Your task to perform on an android device: see creations saved in the google photos Image 0: 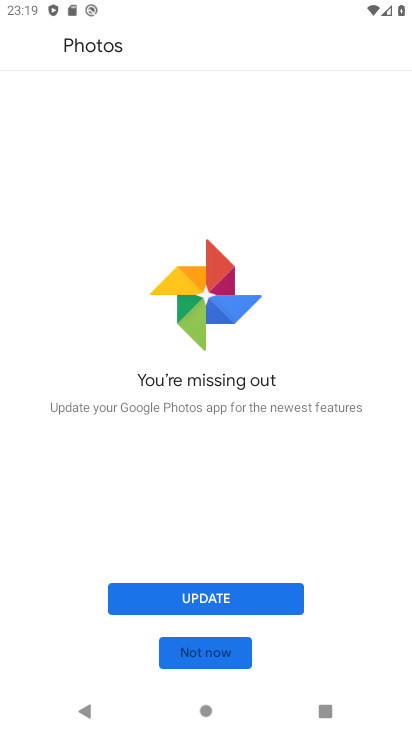
Step 0: press home button
Your task to perform on an android device: see creations saved in the google photos Image 1: 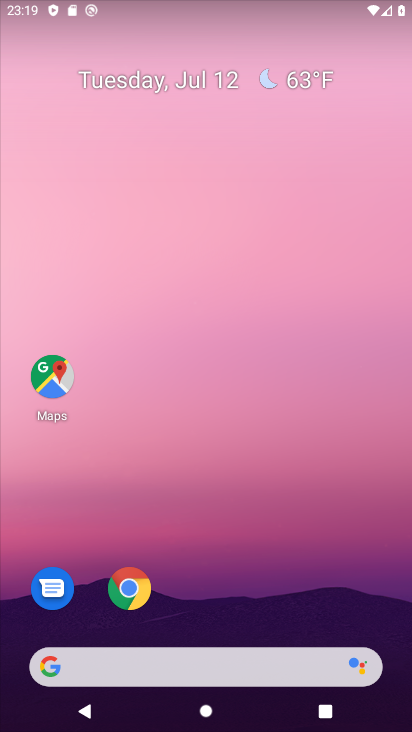
Step 1: drag from (50, 659) to (263, 130)
Your task to perform on an android device: see creations saved in the google photos Image 2: 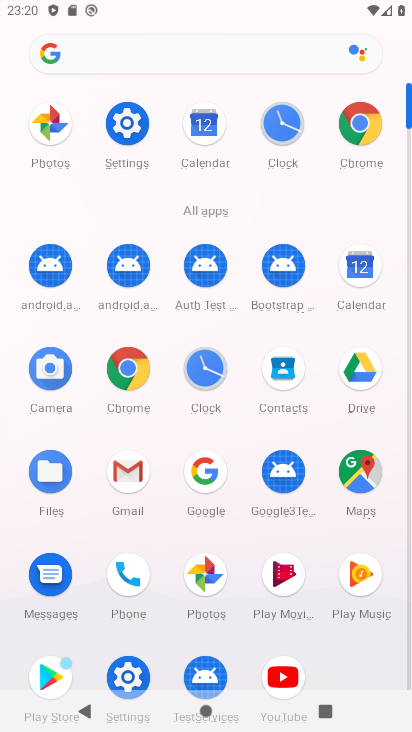
Step 2: click (200, 577)
Your task to perform on an android device: see creations saved in the google photos Image 3: 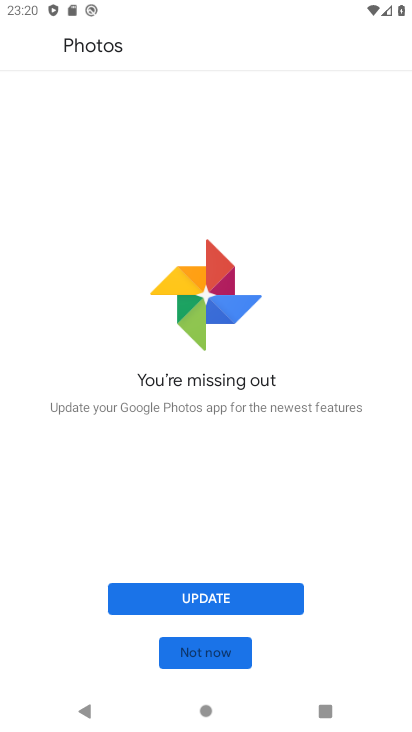
Step 3: click (208, 659)
Your task to perform on an android device: see creations saved in the google photos Image 4: 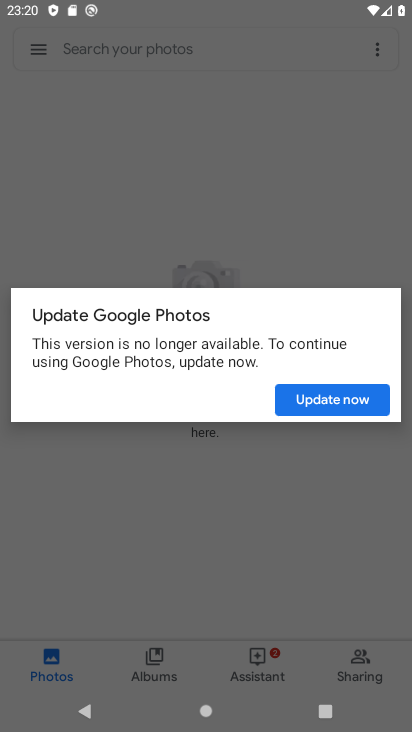
Step 4: click (308, 403)
Your task to perform on an android device: see creations saved in the google photos Image 5: 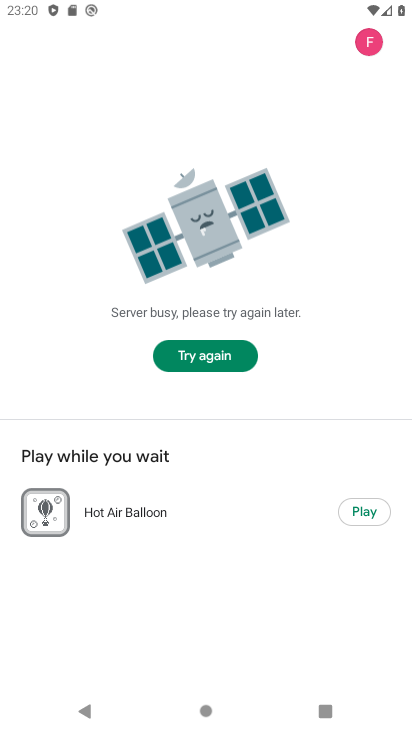
Step 5: task complete